Your task to perform on an android device: turn on wifi Image 0: 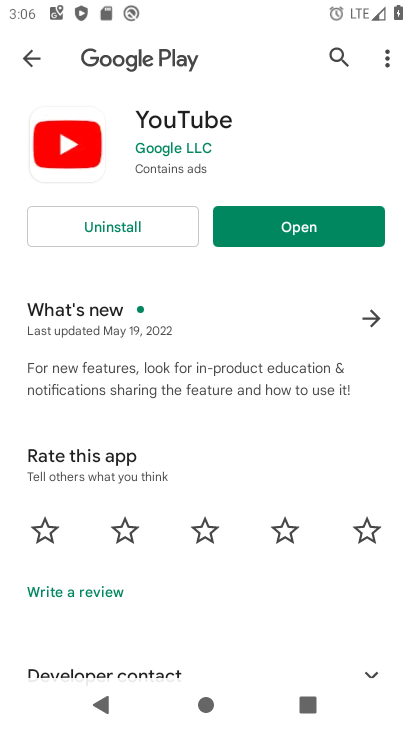
Step 0: press home button
Your task to perform on an android device: turn on wifi Image 1: 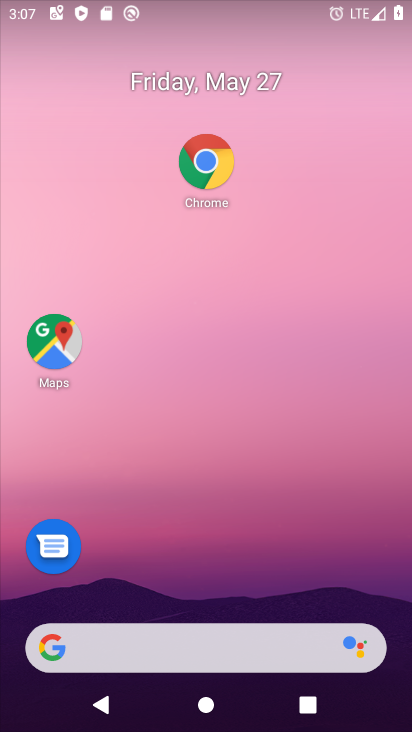
Step 1: drag from (199, 414) to (229, 122)
Your task to perform on an android device: turn on wifi Image 2: 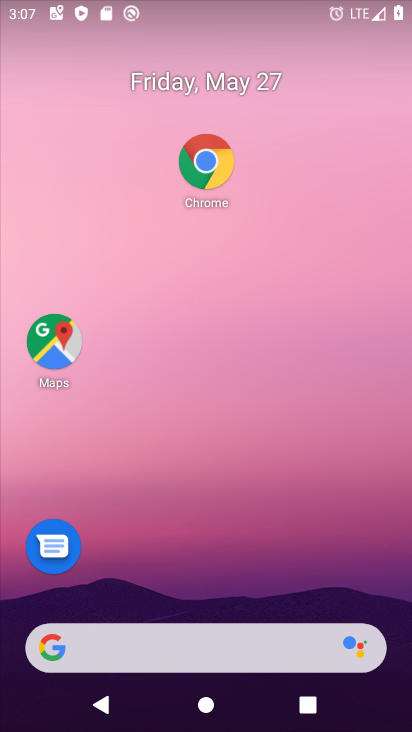
Step 2: drag from (208, 370) to (241, 75)
Your task to perform on an android device: turn on wifi Image 3: 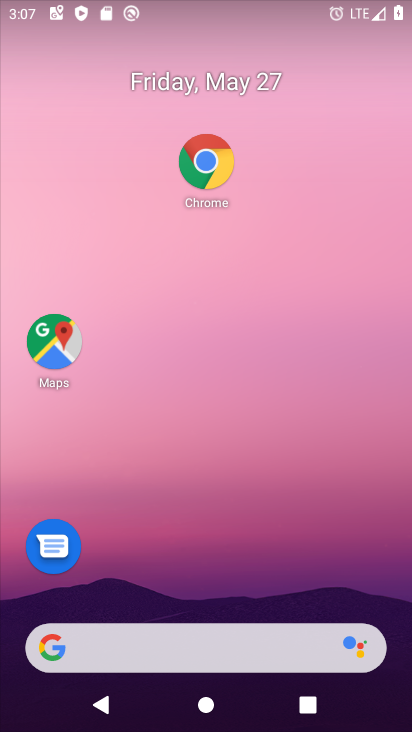
Step 3: drag from (215, 616) to (308, 101)
Your task to perform on an android device: turn on wifi Image 4: 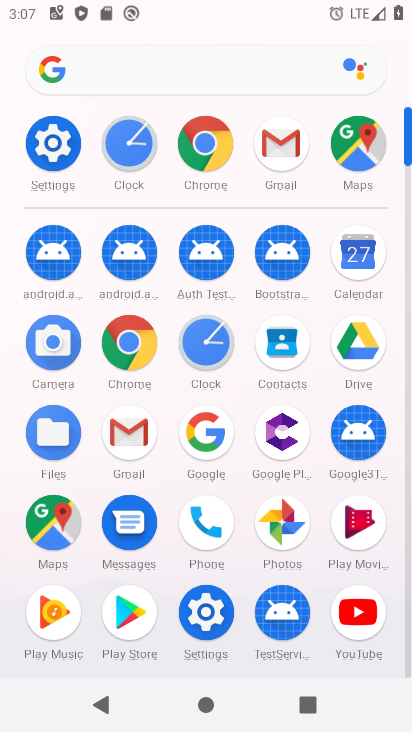
Step 4: click (55, 143)
Your task to perform on an android device: turn on wifi Image 5: 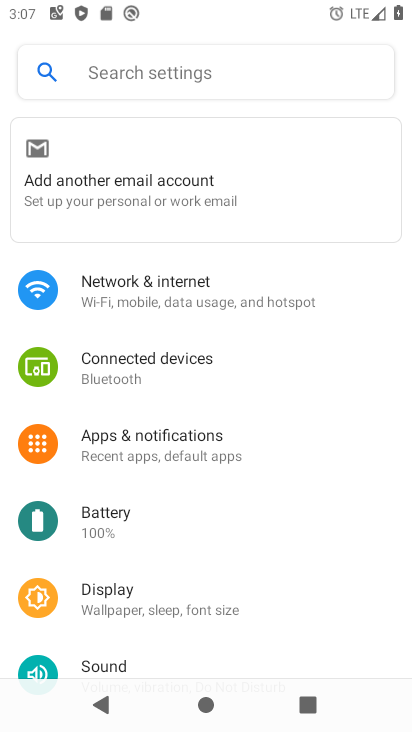
Step 5: drag from (168, 179) to (270, 65)
Your task to perform on an android device: turn on wifi Image 6: 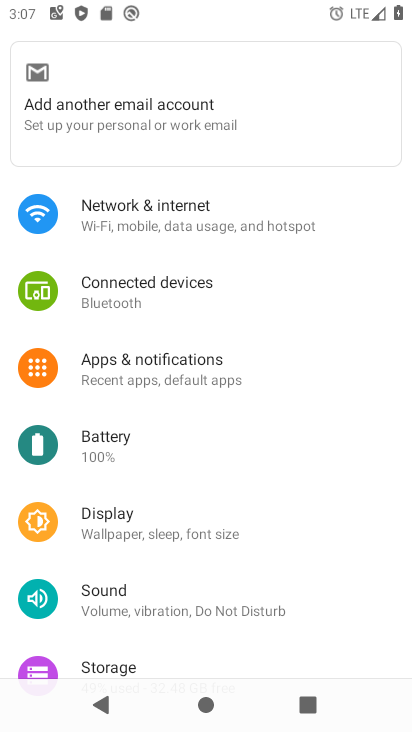
Step 6: click (160, 212)
Your task to perform on an android device: turn on wifi Image 7: 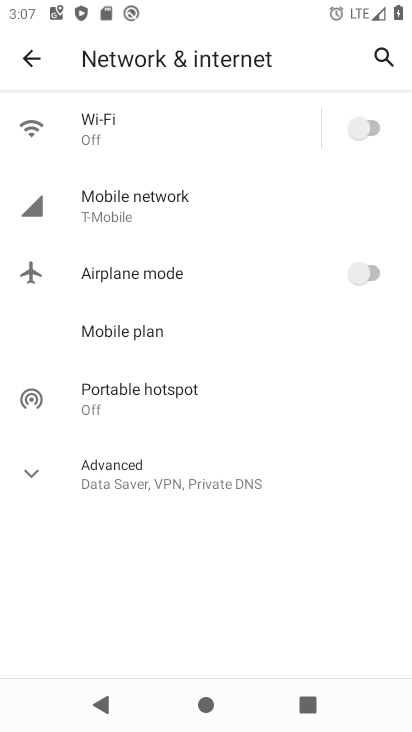
Step 7: click (354, 130)
Your task to perform on an android device: turn on wifi Image 8: 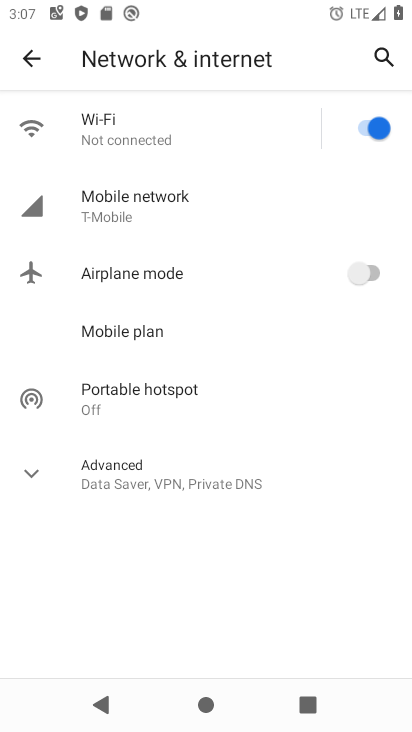
Step 8: task complete